Your task to perform on an android device: Search for vegetarian restaurants on Maps Image 0: 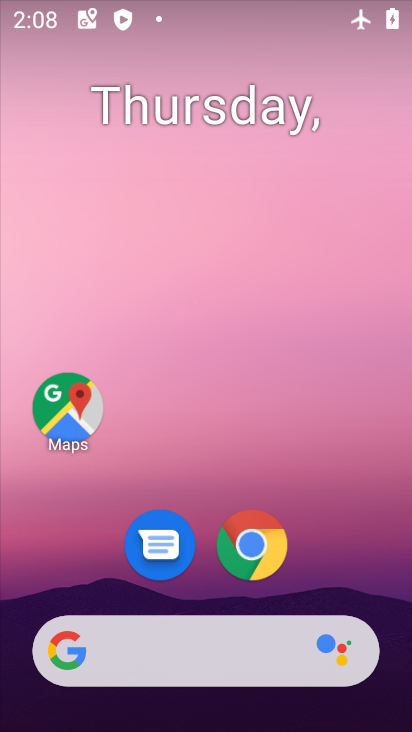
Step 0: click (55, 404)
Your task to perform on an android device: Search for vegetarian restaurants on Maps Image 1: 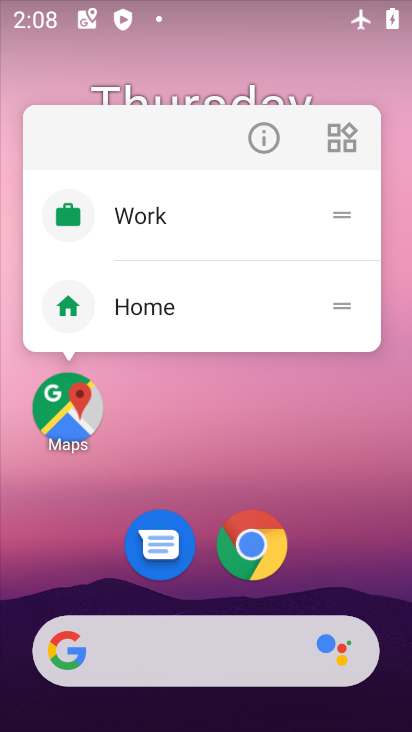
Step 1: click (74, 419)
Your task to perform on an android device: Search for vegetarian restaurants on Maps Image 2: 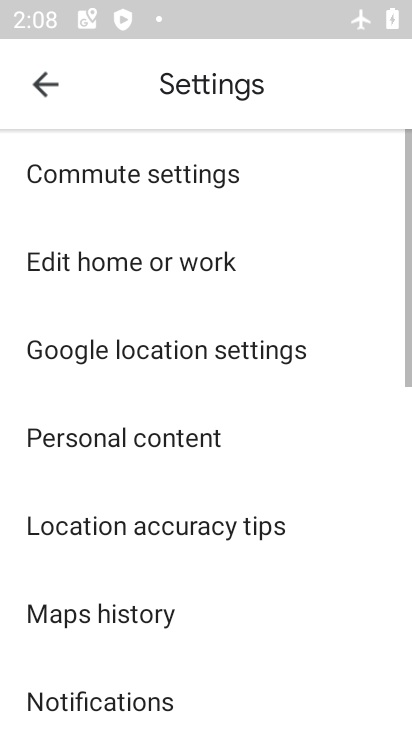
Step 2: click (45, 82)
Your task to perform on an android device: Search for vegetarian restaurants on Maps Image 3: 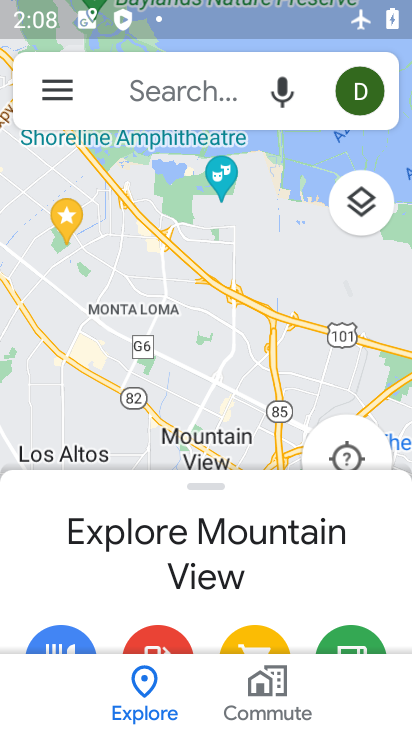
Step 3: click (110, 87)
Your task to perform on an android device: Search for vegetarian restaurants on Maps Image 4: 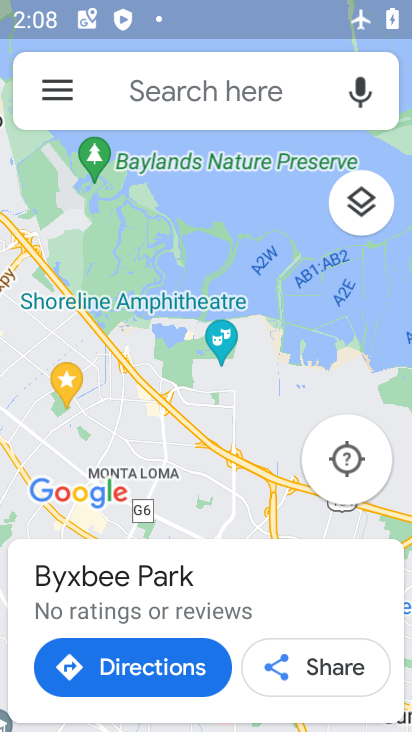
Step 4: click (192, 83)
Your task to perform on an android device: Search for vegetarian restaurants on Maps Image 5: 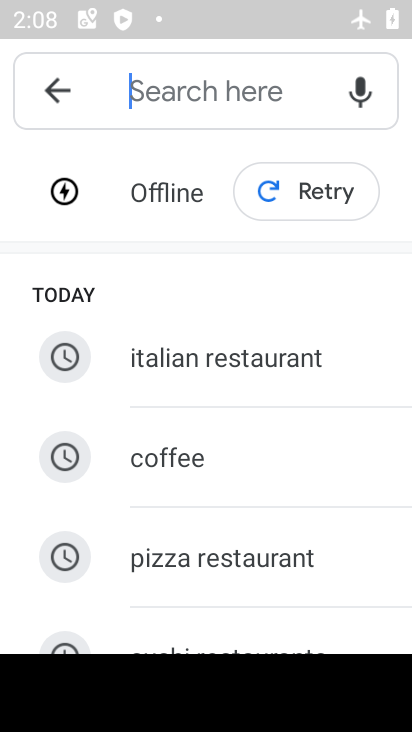
Step 5: drag from (237, 550) to (233, 122)
Your task to perform on an android device: Search for vegetarian restaurants on Maps Image 6: 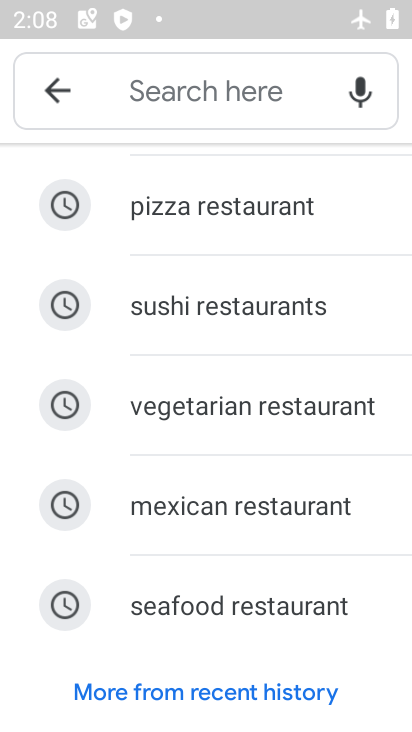
Step 6: click (292, 401)
Your task to perform on an android device: Search for vegetarian restaurants on Maps Image 7: 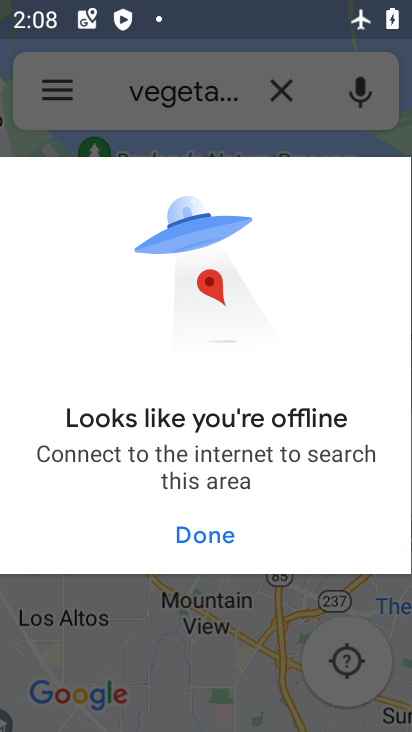
Step 7: click (210, 526)
Your task to perform on an android device: Search for vegetarian restaurants on Maps Image 8: 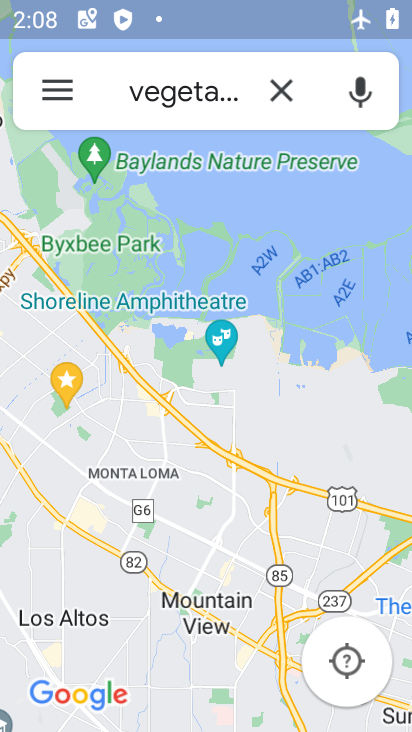
Step 8: task complete